Your task to perform on an android device: find photos in the google photos app Image 0: 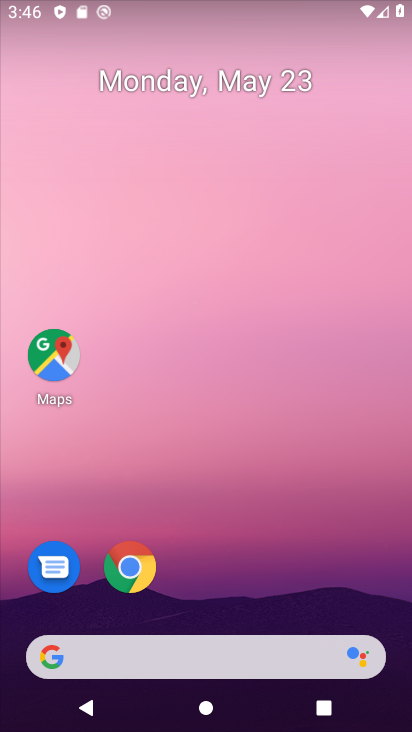
Step 0: drag from (371, 615) to (360, 128)
Your task to perform on an android device: find photos in the google photos app Image 1: 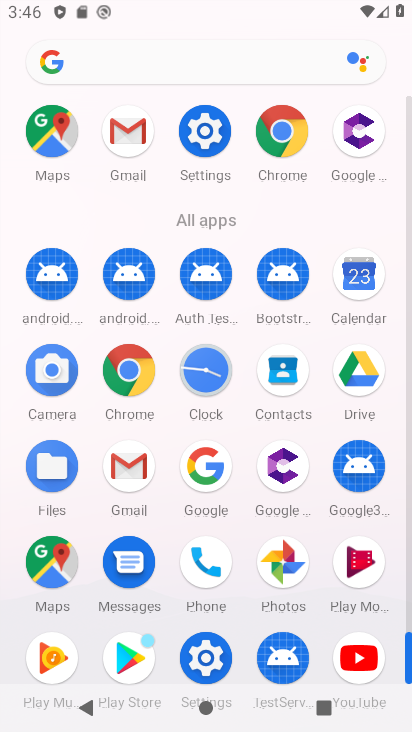
Step 1: click (282, 560)
Your task to perform on an android device: find photos in the google photos app Image 2: 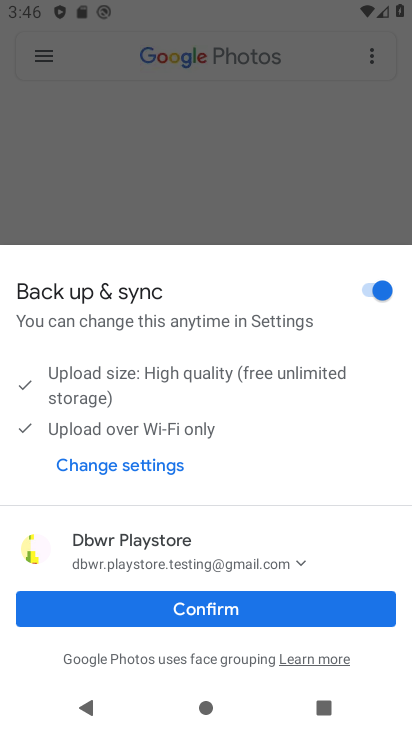
Step 2: click (195, 620)
Your task to perform on an android device: find photos in the google photos app Image 3: 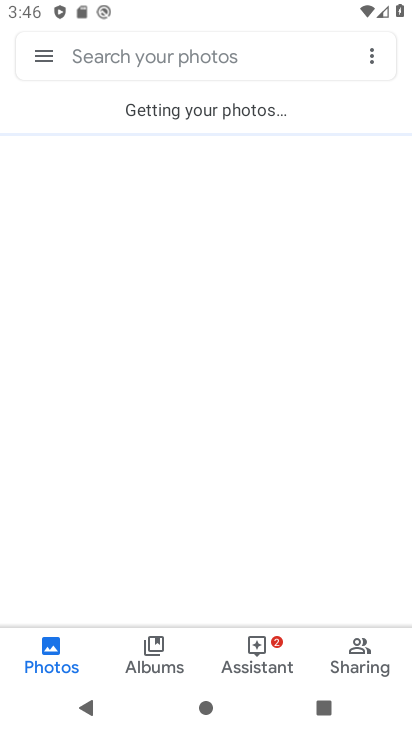
Step 3: task complete